Your task to perform on an android device: Open accessibility settings Image 0: 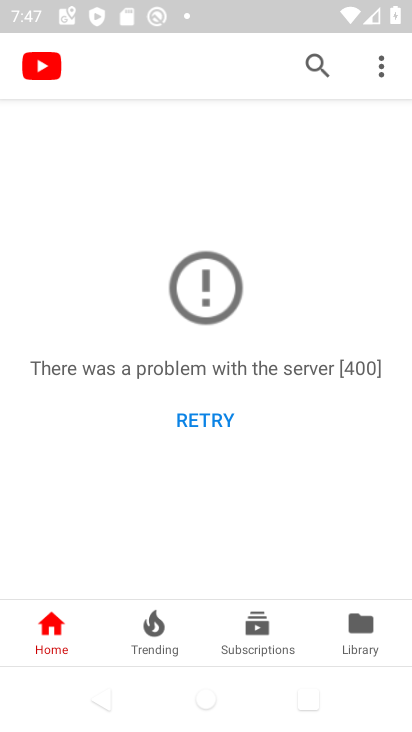
Step 0: press home button
Your task to perform on an android device: Open accessibility settings Image 1: 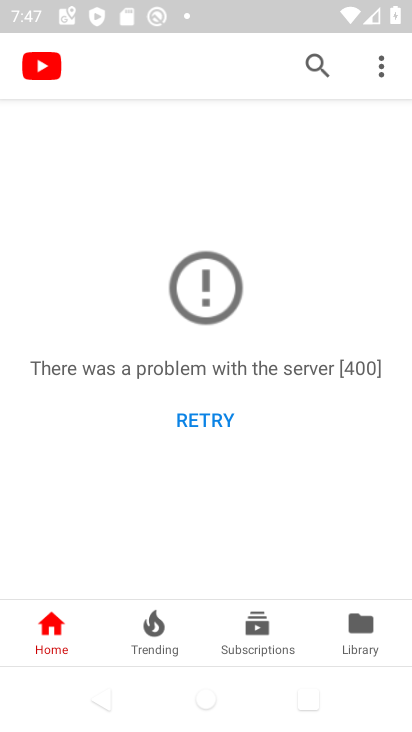
Step 1: click (270, 6)
Your task to perform on an android device: Open accessibility settings Image 2: 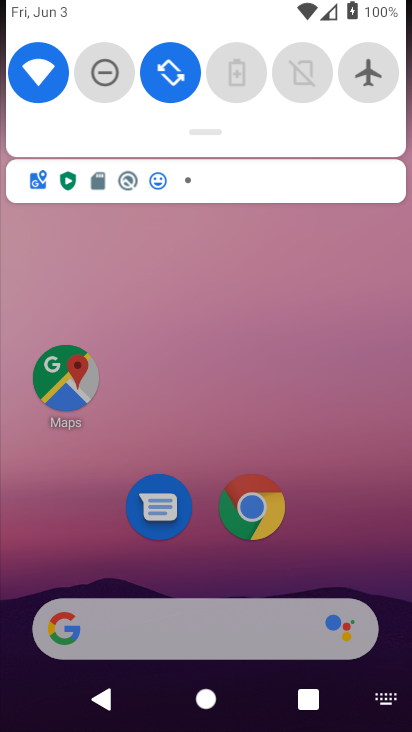
Step 2: drag from (355, 535) to (298, 43)
Your task to perform on an android device: Open accessibility settings Image 3: 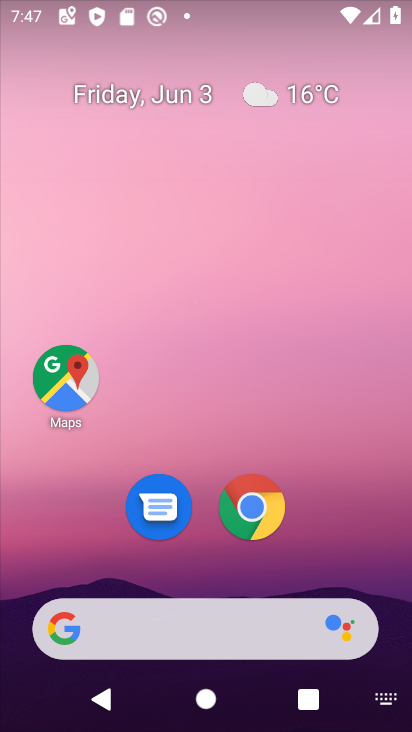
Step 3: drag from (338, 494) to (7, 471)
Your task to perform on an android device: Open accessibility settings Image 4: 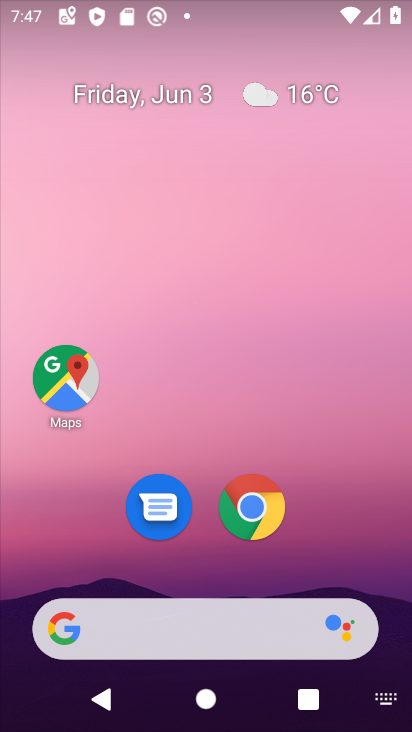
Step 4: drag from (363, 513) to (215, 76)
Your task to perform on an android device: Open accessibility settings Image 5: 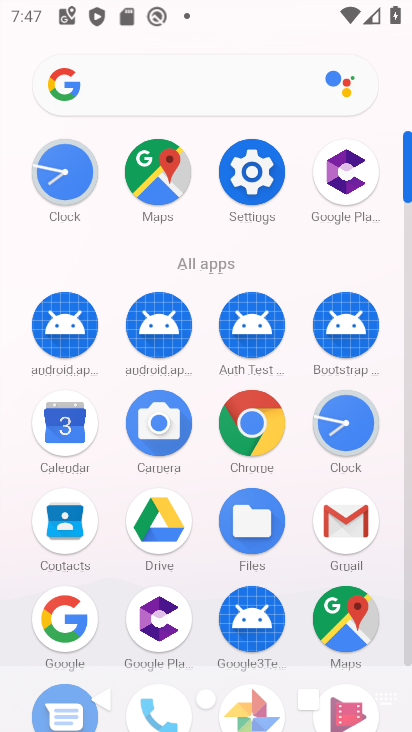
Step 5: click (274, 183)
Your task to perform on an android device: Open accessibility settings Image 6: 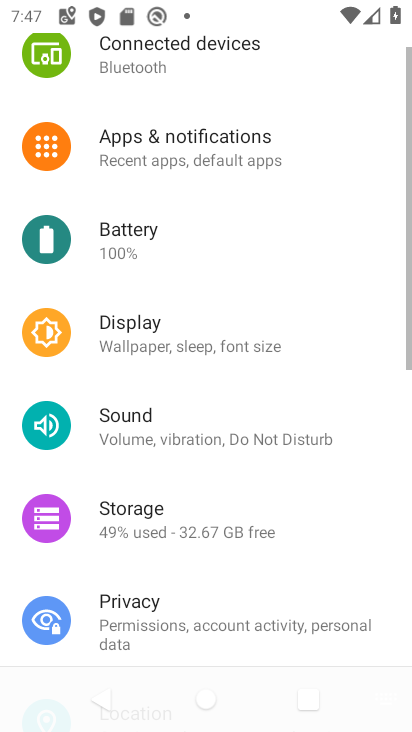
Step 6: drag from (294, 546) to (283, 62)
Your task to perform on an android device: Open accessibility settings Image 7: 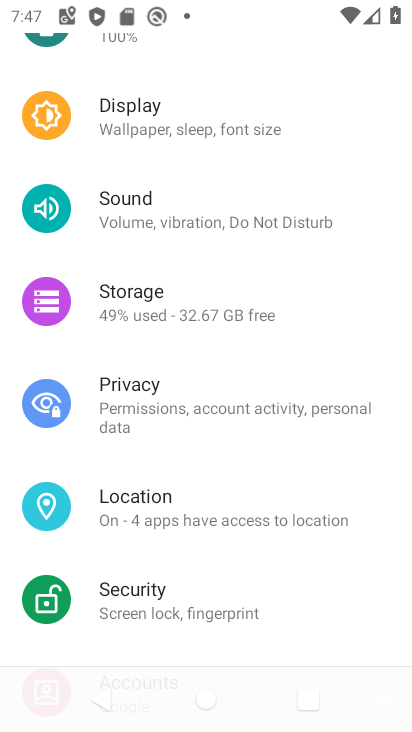
Step 7: drag from (223, 548) to (268, 23)
Your task to perform on an android device: Open accessibility settings Image 8: 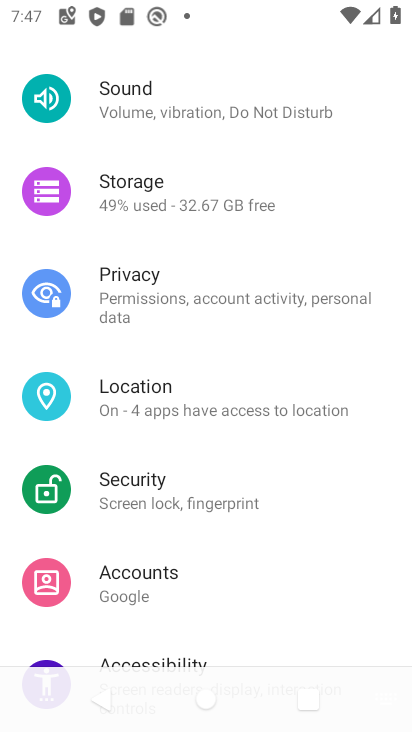
Step 8: drag from (210, 600) to (200, 132)
Your task to perform on an android device: Open accessibility settings Image 9: 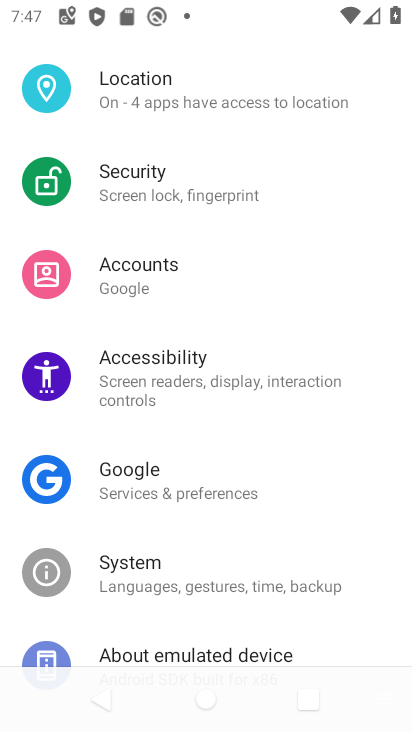
Step 9: click (200, 365)
Your task to perform on an android device: Open accessibility settings Image 10: 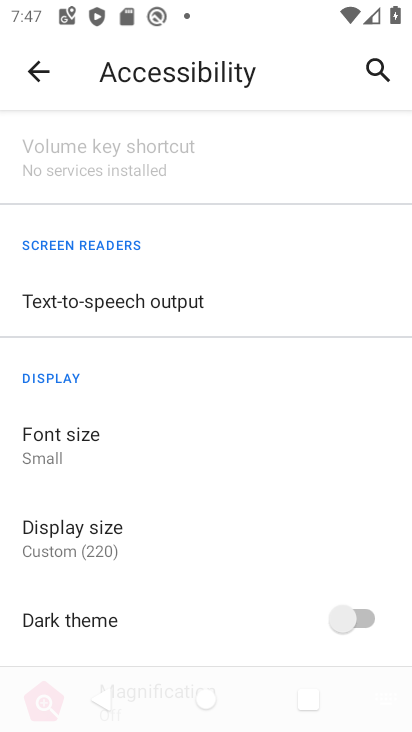
Step 10: task complete